Your task to perform on an android device: check google app version Image 0: 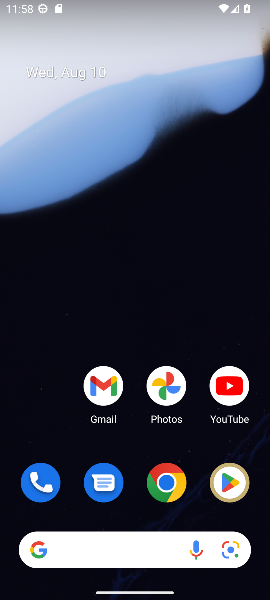
Step 0: drag from (59, 372) to (66, 235)
Your task to perform on an android device: check google app version Image 1: 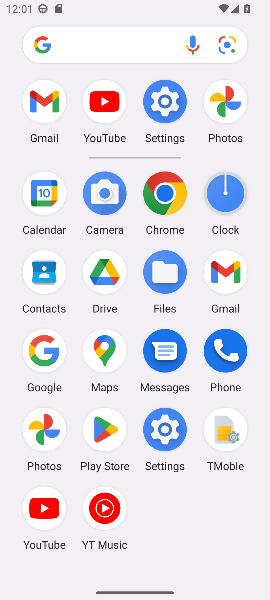
Step 1: click (182, 103)
Your task to perform on an android device: check google app version Image 2: 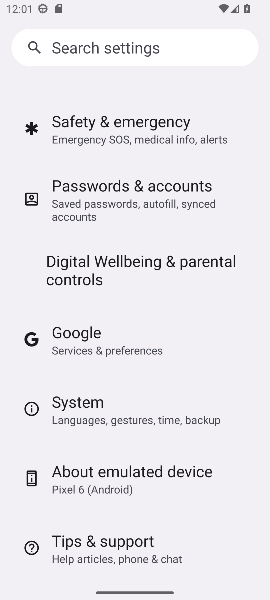
Step 2: task complete